Your task to perform on an android device: check google app version Image 0: 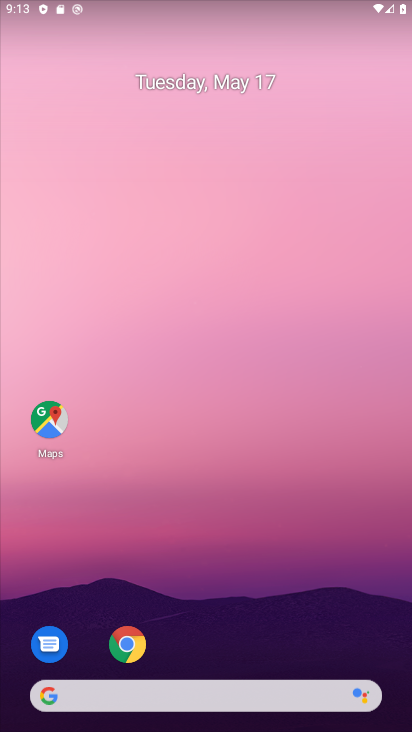
Step 0: drag from (248, 606) to (266, 27)
Your task to perform on an android device: check google app version Image 1: 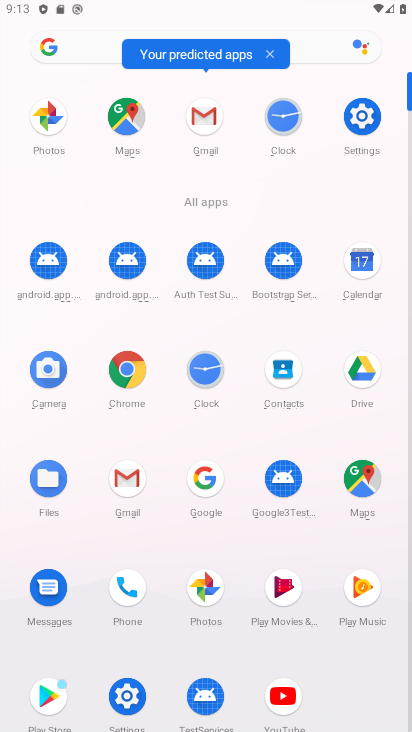
Step 1: click (215, 485)
Your task to perform on an android device: check google app version Image 2: 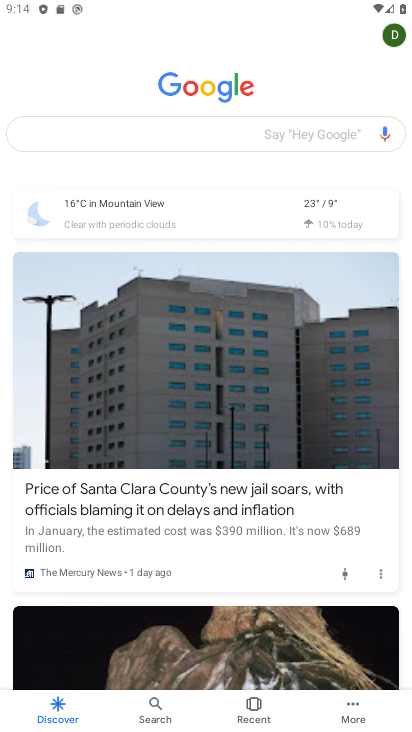
Step 2: click (361, 709)
Your task to perform on an android device: check google app version Image 3: 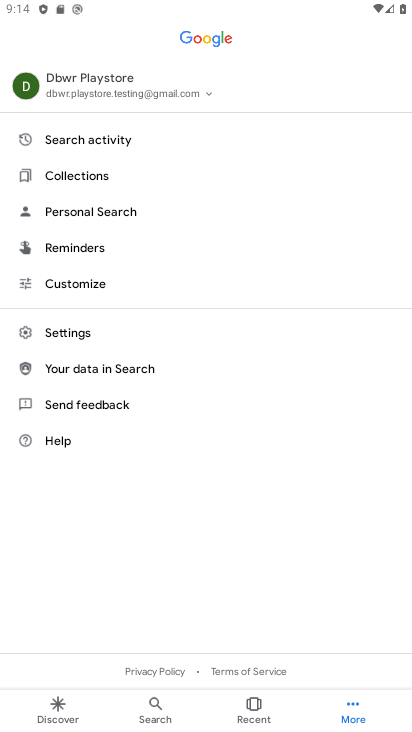
Step 3: click (72, 331)
Your task to perform on an android device: check google app version Image 4: 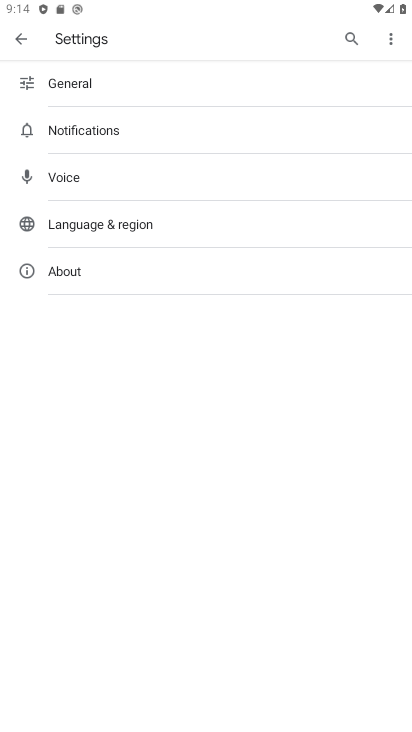
Step 4: click (70, 275)
Your task to perform on an android device: check google app version Image 5: 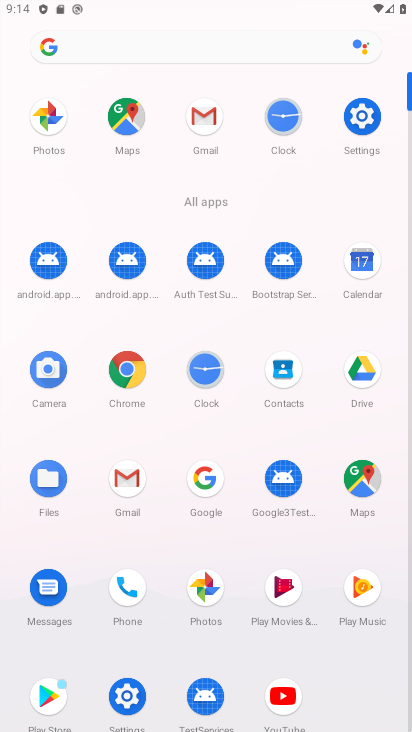
Step 5: click (198, 489)
Your task to perform on an android device: check google app version Image 6: 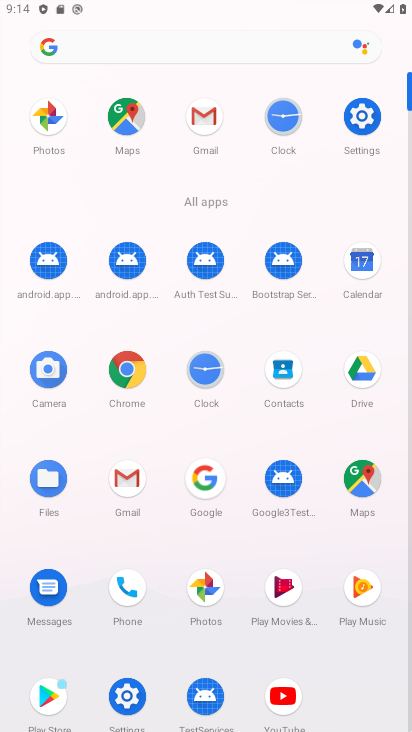
Step 6: click (202, 485)
Your task to perform on an android device: check google app version Image 7: 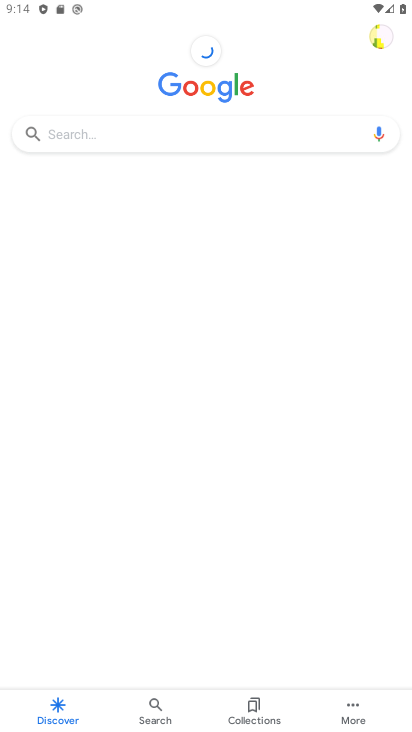
Step 7: click (342, 712)
Your task to perform on an android device: check google app version Image 8: 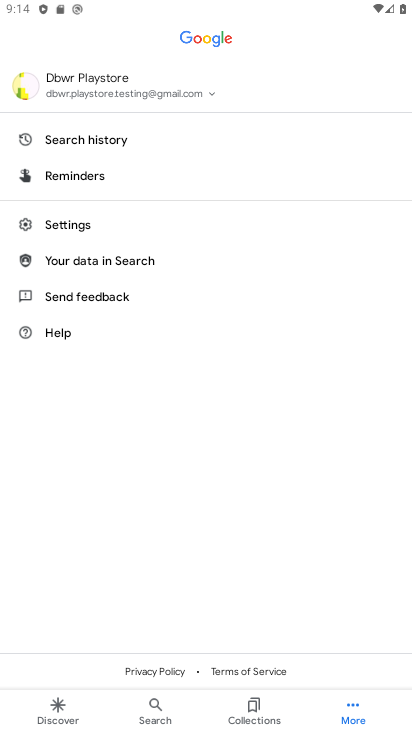
Step 8: click (81, 218)
Your task to perform on an android device: check google app version Image 9: 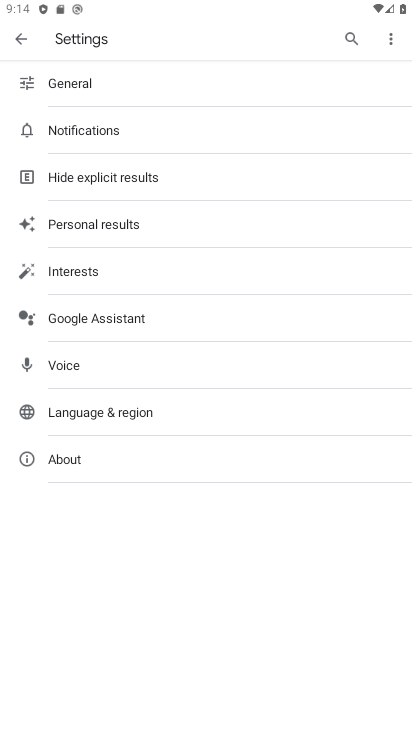
Step 9: click (85, 462)
Your task to perform on an android device: check google app version Image 10: 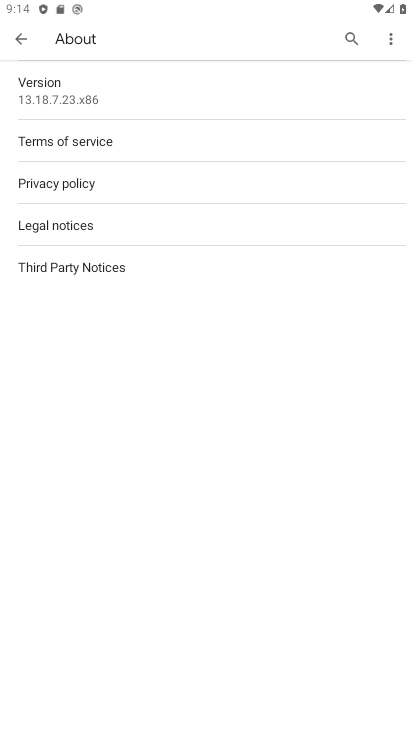
Step 10: task complete